Your task to perform on an android device: Search for sushi restaurants on Maps Image 0: 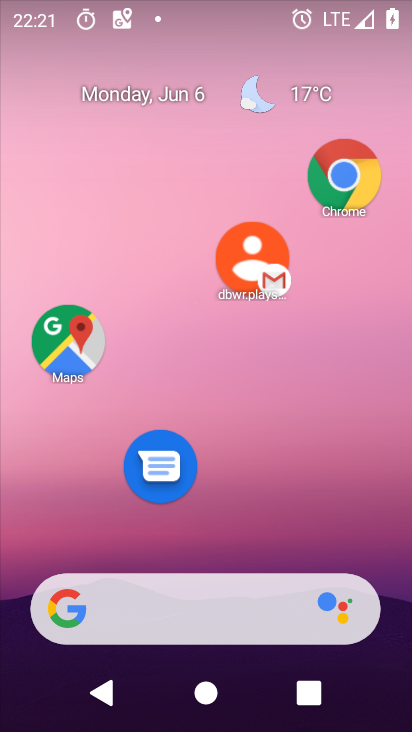
Step 0: drag from (206, 526) to (174, 66)
Your task to perform on an android device: Search for sushi restaurants on Maps Image 1: 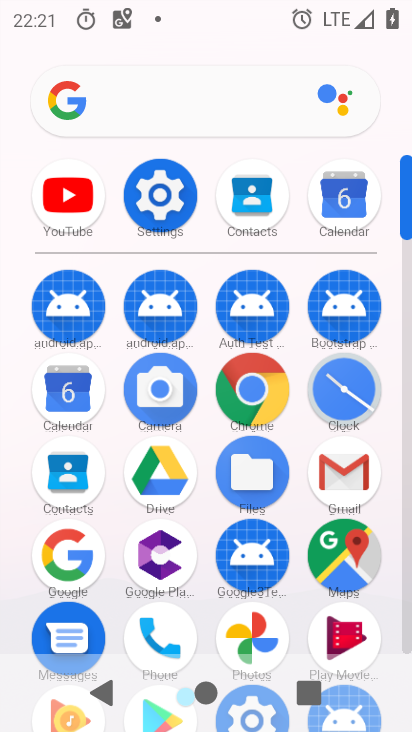
Step 1: click (365, 549)
Your task to perform on an android device: Search for sushi restaurants on Maps Image 2: 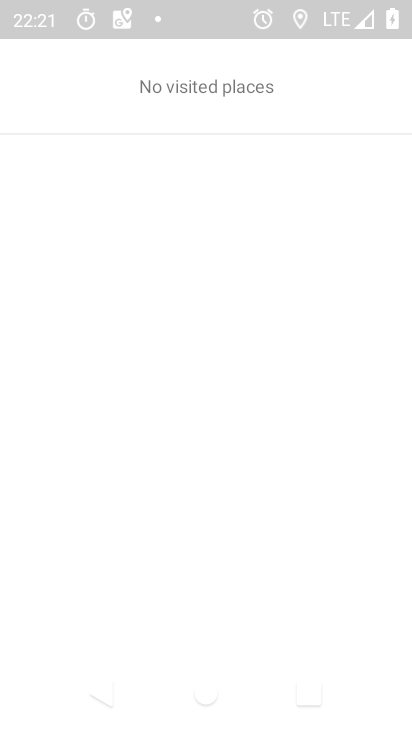
Step 2: drag from (223, 234) to (363, 266)
Your task to perform on an android device: Search for sushi restaurants on Maps Image 3: 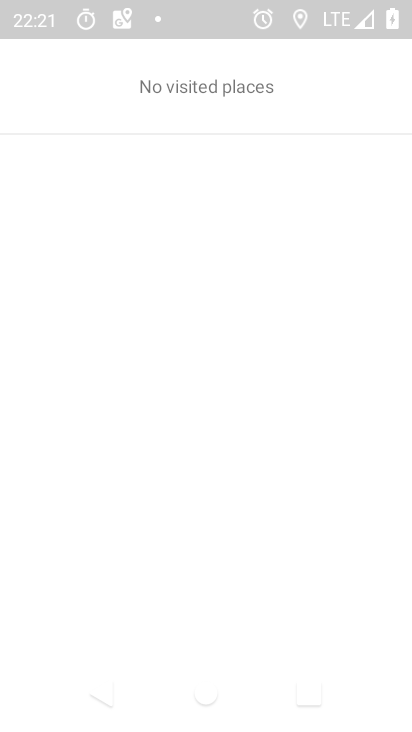
Step 3: drag from (88, 150) to (397, 380)
Your task to perform on an android device: Search for sushi restaurants on Maps Image 4: 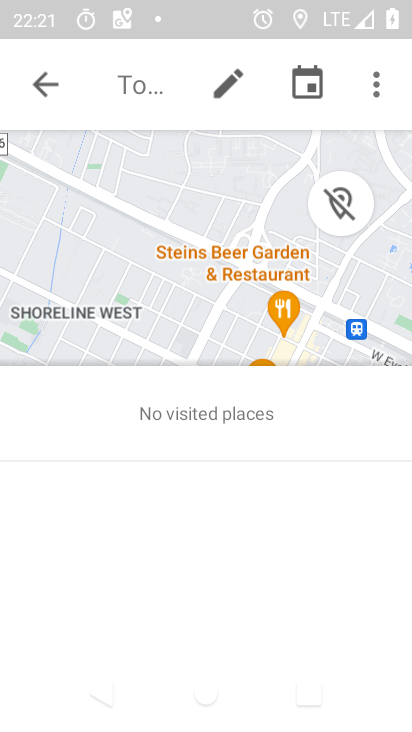
Step 4: press back button
Your task to perform on an android device: Search for sushi restaurants on Maps Image 5: 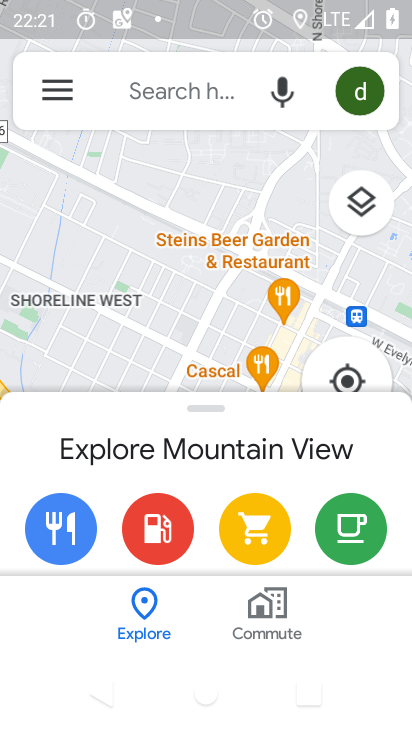
Step 5: click (125, 79)
Your task to perform on an android device: Search for sushi restaurants on Maps Image 6: 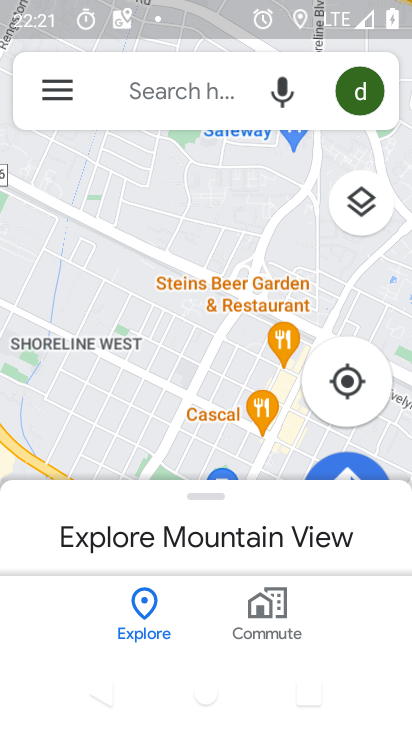
Step 6: click (139, 97)
Your task to perform on an android device: Search for sushi restaurants on Maps Image 7: 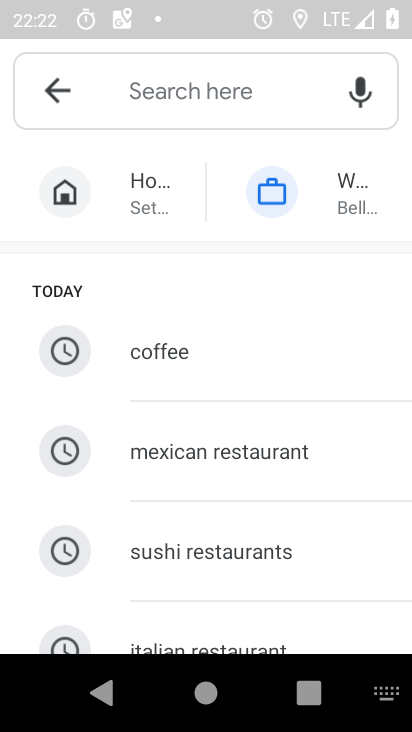
Step 7: click (195, 561)
Your task to perform on an android device: Search for sushi restaurants on Maps Image 8: 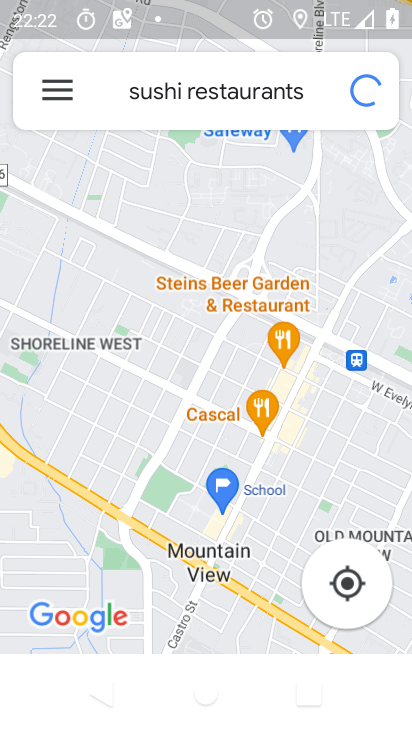
Step 8: task complete